Your task to perform on an android device: Search for asus zenbook on costco.com, select the first entry, add it to the cart, then select checkout. Image 0: 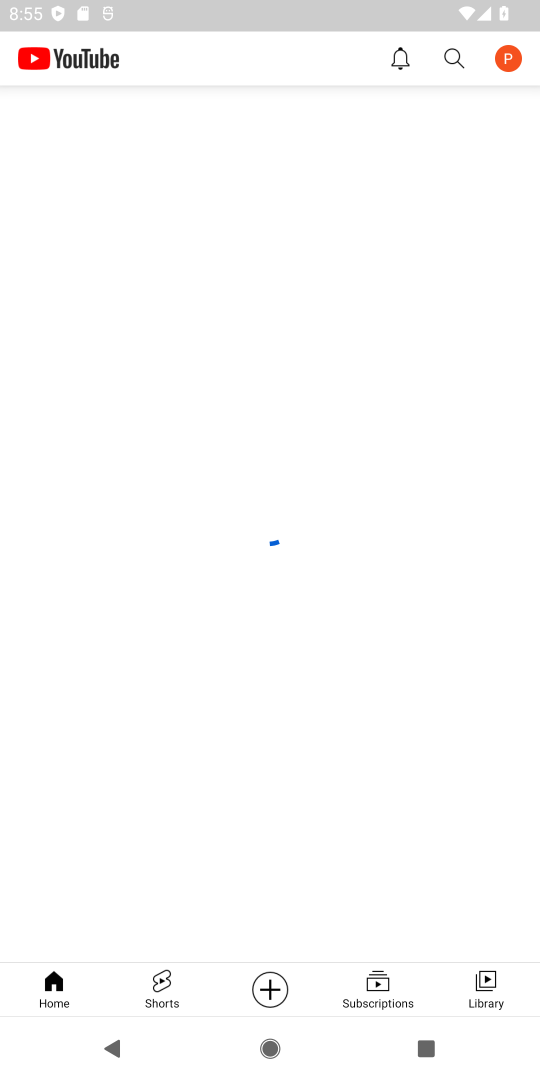
Step 0: press home button
Your task to perform on an android device: Search for asus zenbook on costco.com, select the first entry, add it to the cart, then select checkout. Image 1: 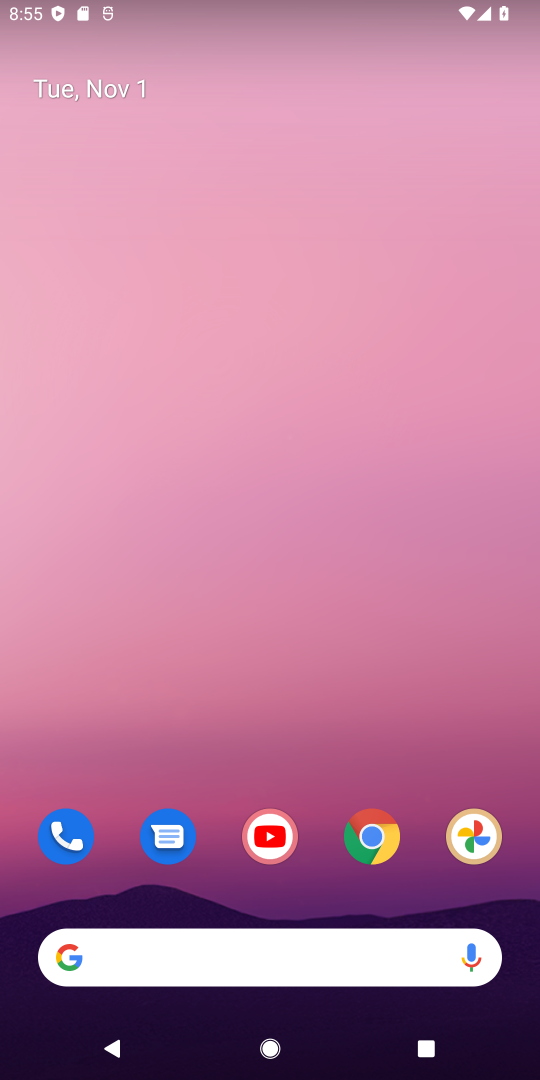
Step 1: click (361, 831)
Your task to perform on an android device: Search for asus zenbook on costco.com, select the first entry, add it to the cart, then select checkout. Image 2: 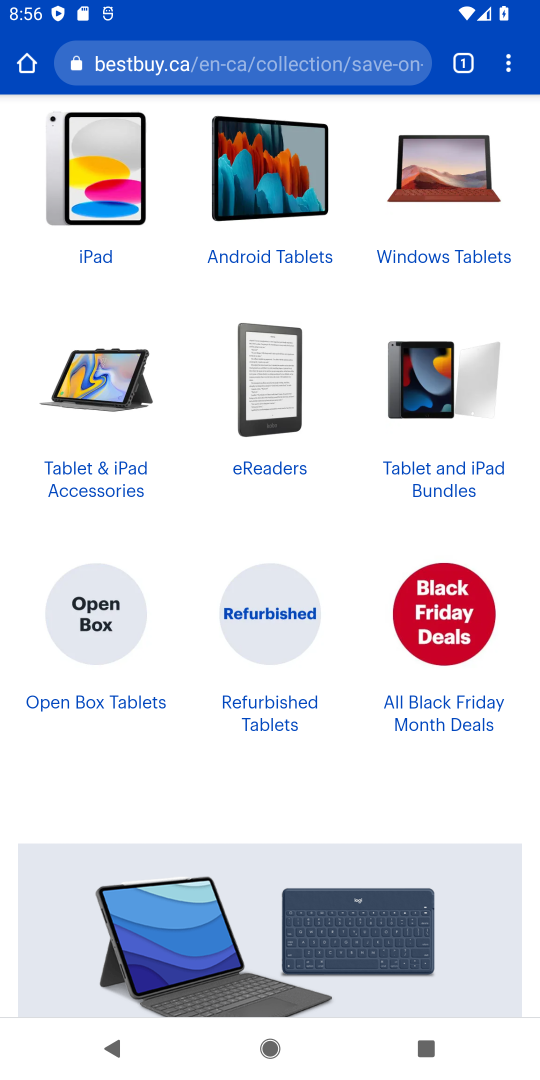
Step 2: click (186, 49)
Your task to perform on an android device: Search for asus zenbook on costco.com, select the first entry, add it to the cart, then select checkout. Image 3: 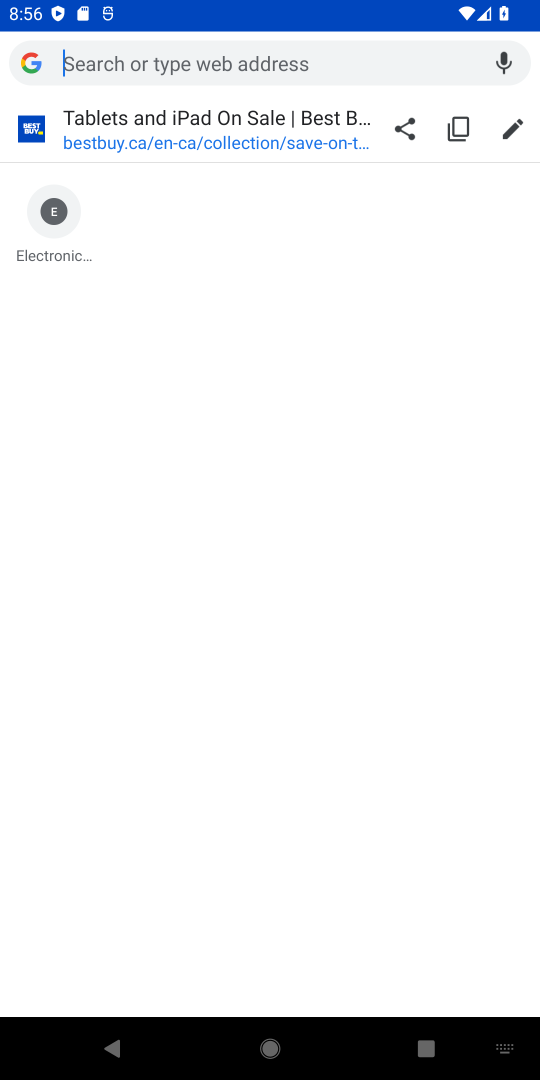
Step 3: type "costco.com"
Your task to perform on an android device: Search for asus zenbook on costco.com, select the first entry, add it to the cart, then select checkout. Image 4: 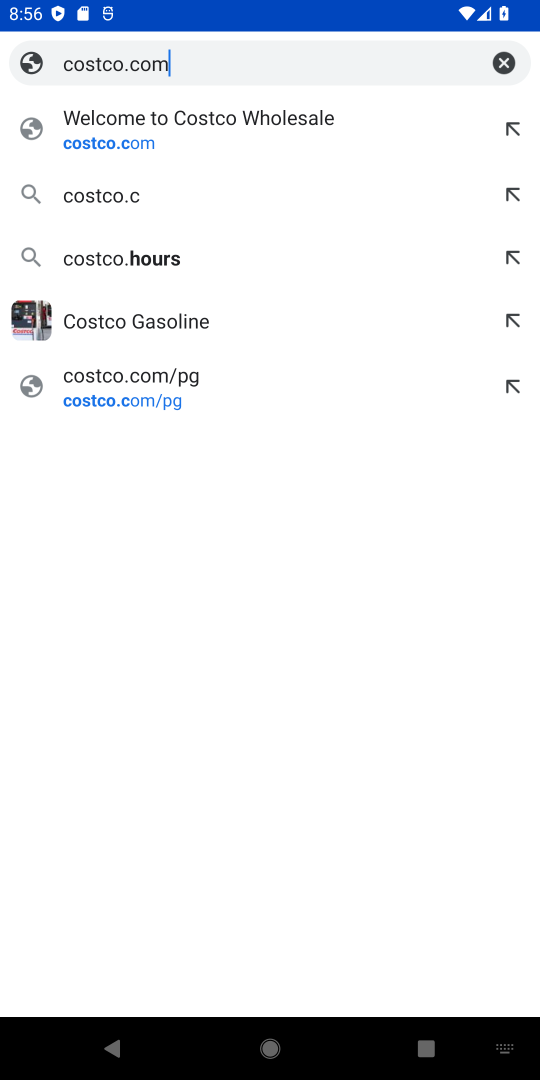
Step 4: type ""
Your task to perform on an android device: Search for asus zenbook on costco.com, select the first entry, add it to the cart, then select checkout. Image 5: 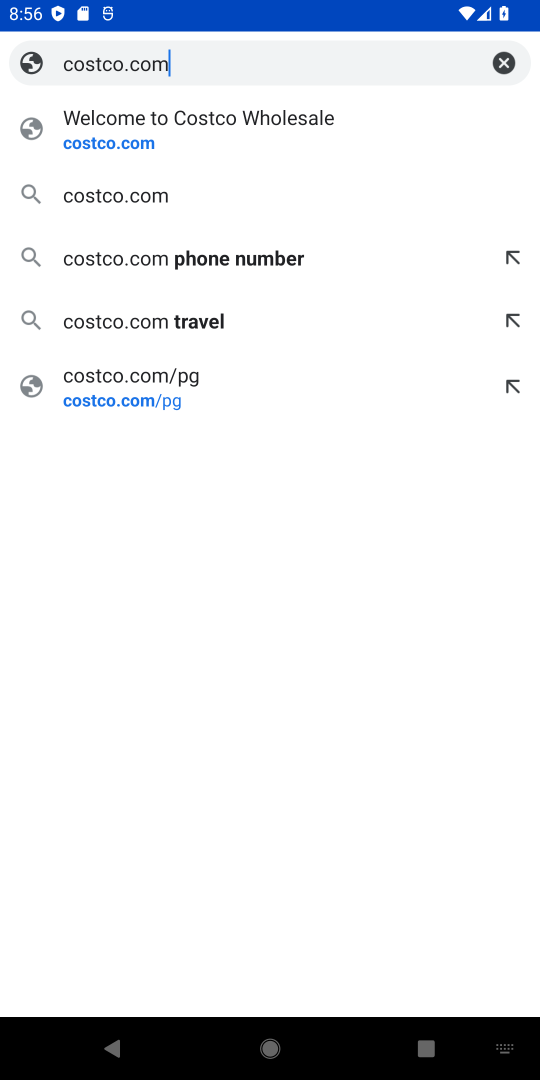
Step 5: click (230, 133)
Your task to perform on an android device: Search for asus zenbook on costco.com, select the first entry, add it to the cart, then select checkout. Image 6: 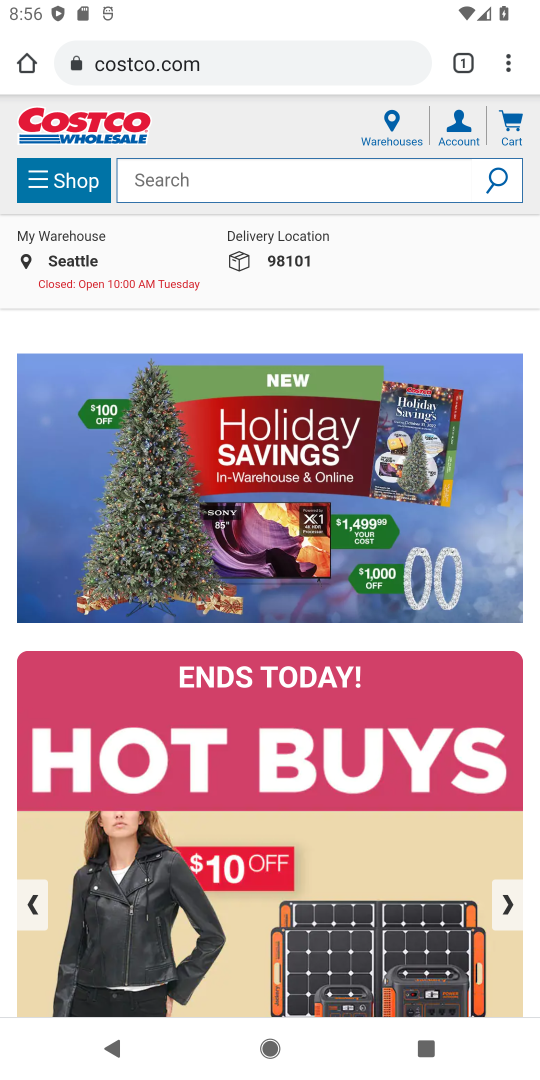
Step 6: click (142, 172)
Your task to perform on an android device: Search for asus zenbook on costco.com, select the first entry, add it to the cart, then select checkout. Image 7: 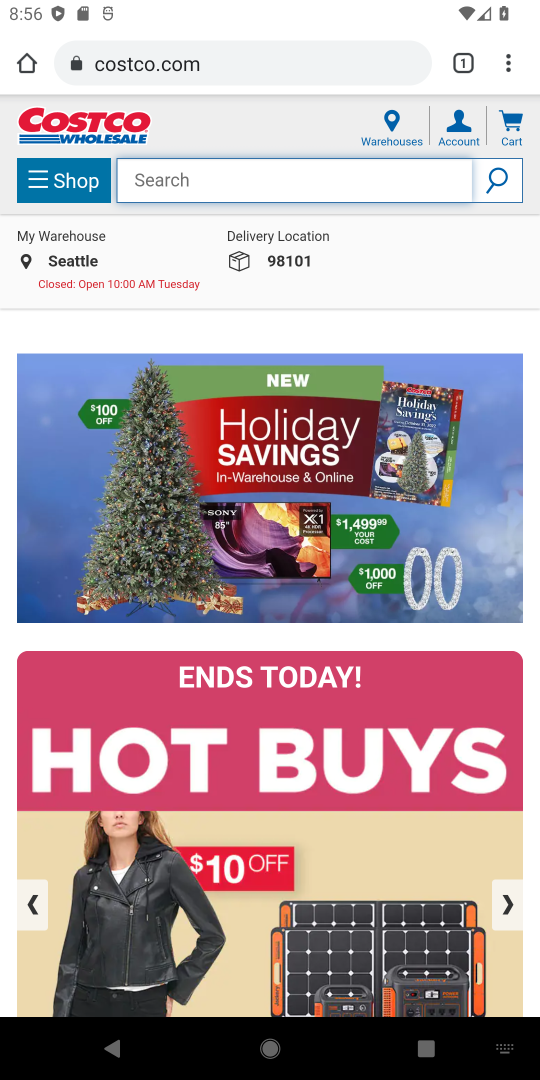
Step 7: type "asus zenbook"
Your task to perform on an android device: Search for asus zenbook on costco.com, select the first entry, add it to the cart, then select checkout. Image 8: 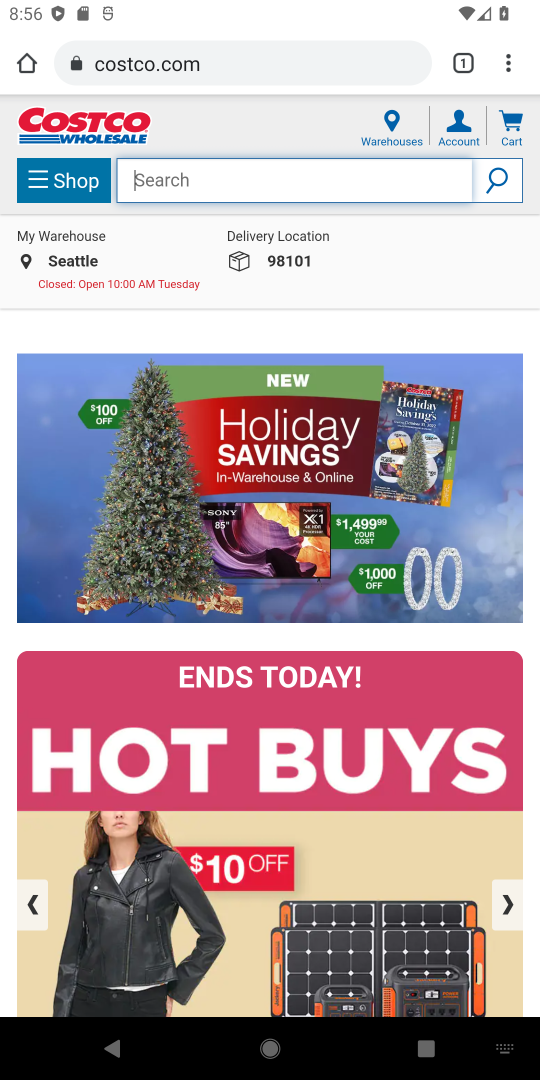
Step 8: type ""
Your task to perform on an android device: Search for asus zenbook on costco.com, select the first entry, add it to the cart, then select checkout. Image 9: 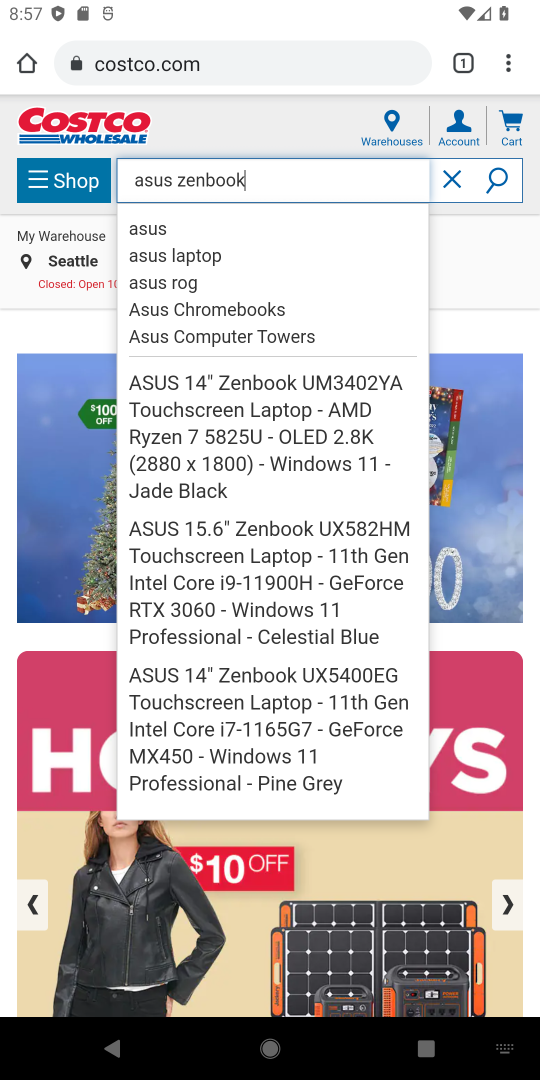
Step 9: press enter
Your task to perform on an android device: Search for asus zenbook on costco.com, select the first entry, add it to the cart, then select checkout. Image 10: 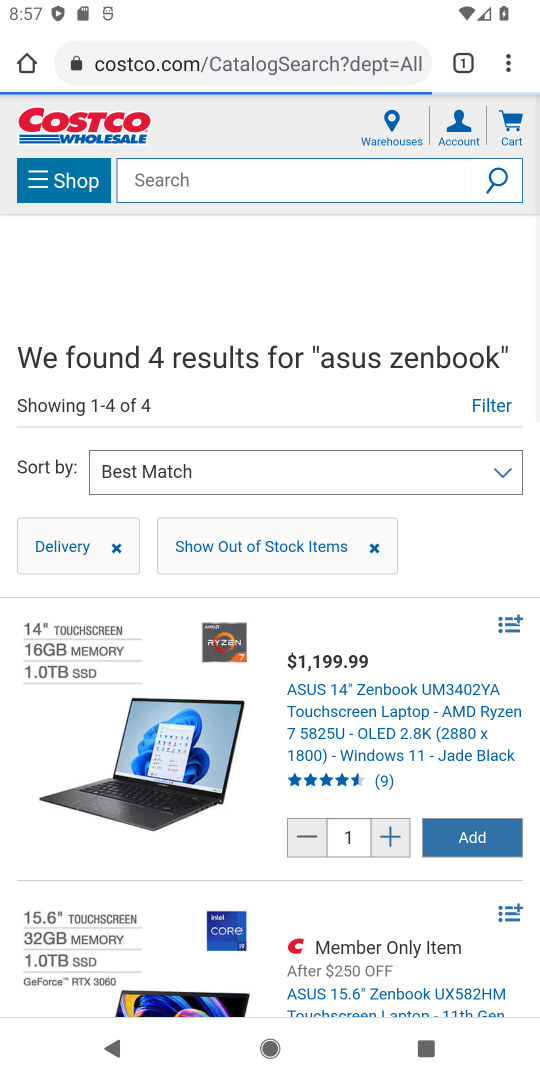
Step 10: click (321, 694)
Your task to perform on an android device: Search for asus zenbook on costco.com, select the first entry, add it to the cart, then select checkout. Image 11: 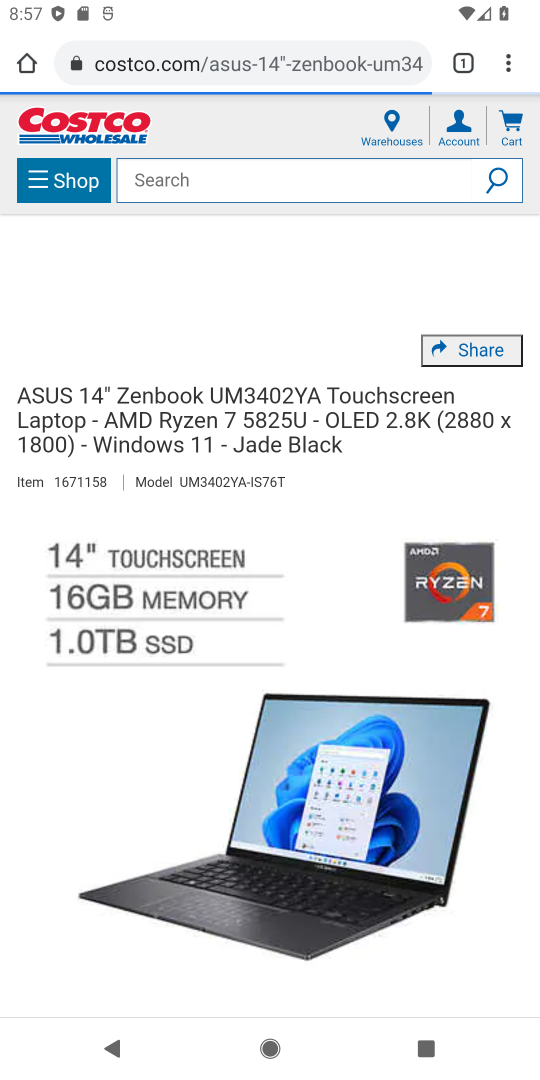
Step 11: drag from (341, 672) to (360, 509)
Your task to perform on an android device: Search for asus zenbook on costco.com, select the first entry, add it to the cart, then select checkout. Image 12: 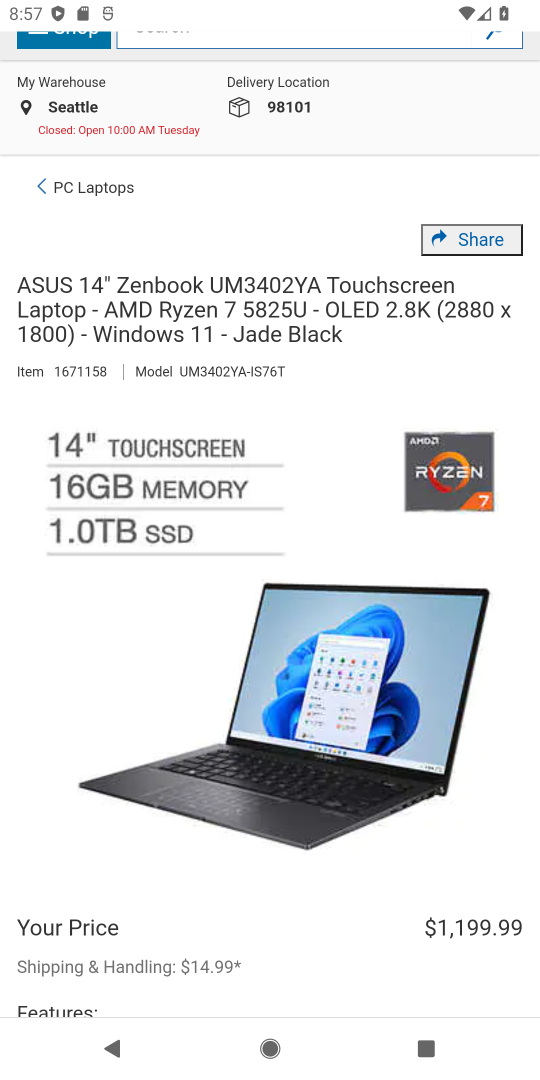
Step 12: drag from (356, 666) to (404, 248)
Your task to perform on an android device: Search for asus zenbook on costco.com, select the first entry, add it to the cart, then select checkout. Image 13: 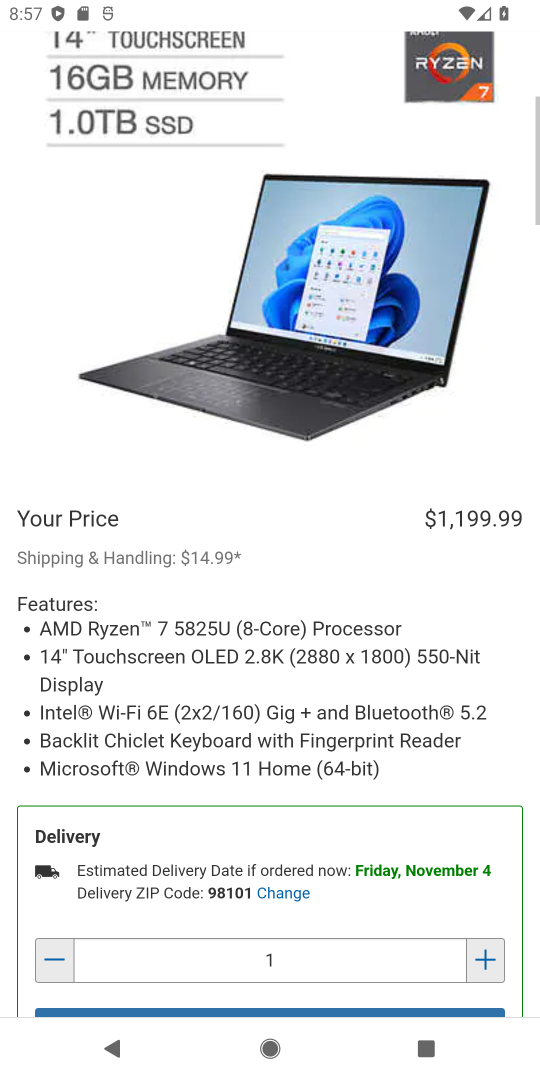
Step 13: click (347, 323)
Your task to perform on an android device: Search for asus zenbook on costco.com, select the first entry, add it to the cart, then select checkout. Image 14: 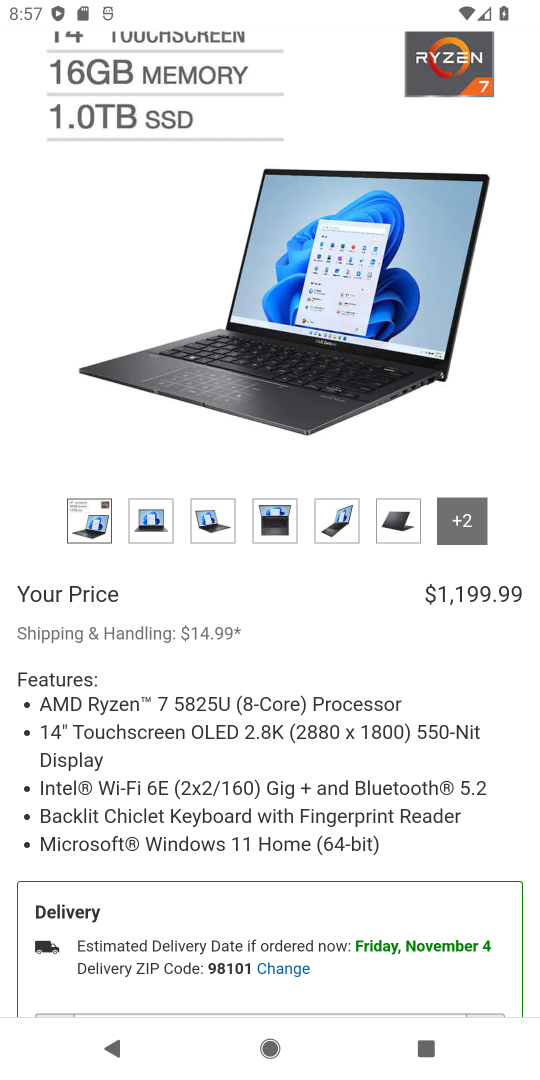
Step 14: drag from (332, 582) to (354, 383)
Your task to perform on an android device: Search for asus zenbook on costco.com, select the first entry, add it to the cart, then select checkout. Image 15: 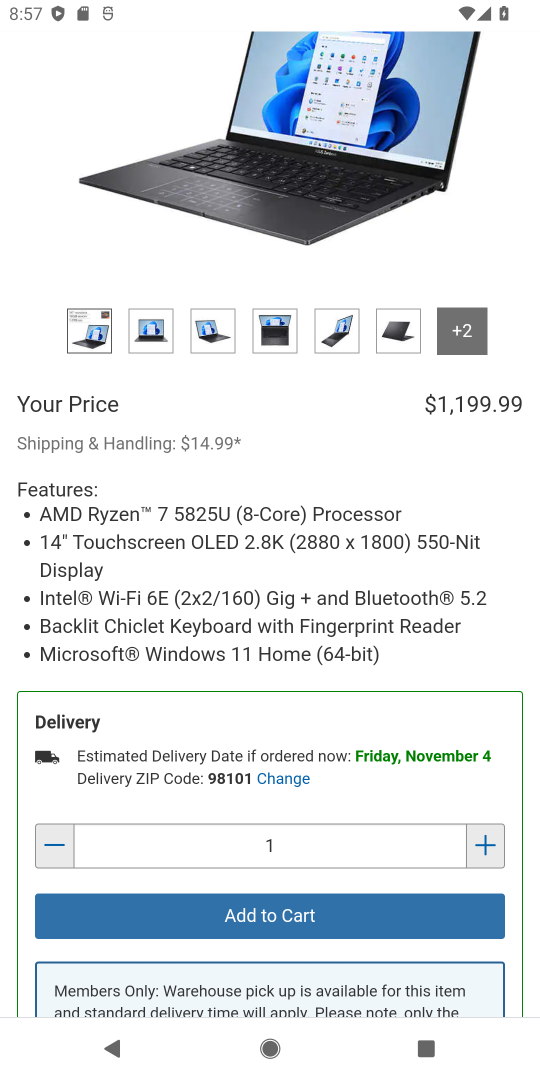
Step 15: click (287, 902)
Your task to perform on an android device: Search for asus zenbook on costco.com, select the first entry, add it to the cart, then select checkout. Image 16: 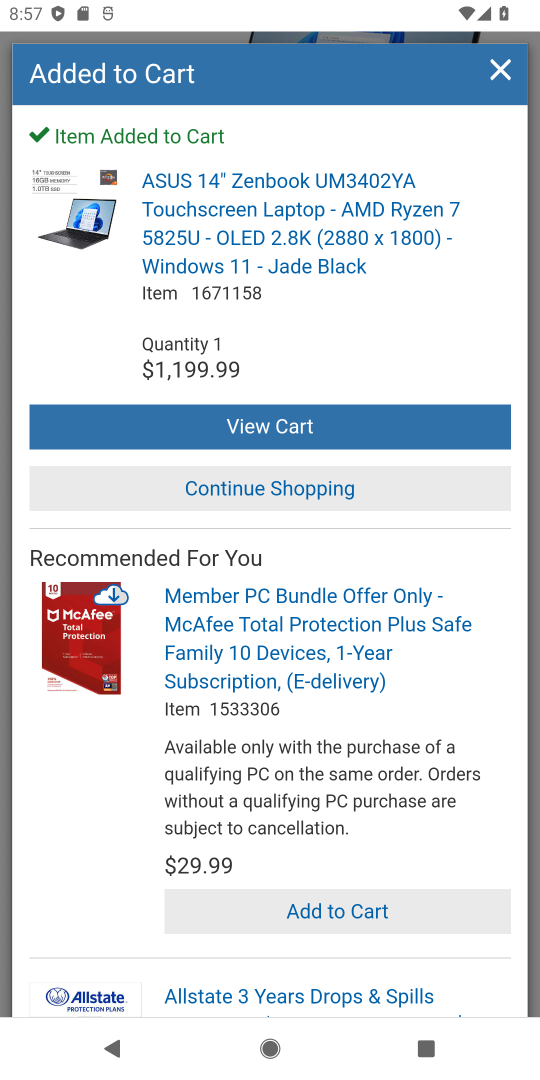
Step 16: click (395, 410)
Your task to perform on an android device: Search for asus zenbook on costco.com, select the first entry, add it to the cart, then select checkout. Image 17: 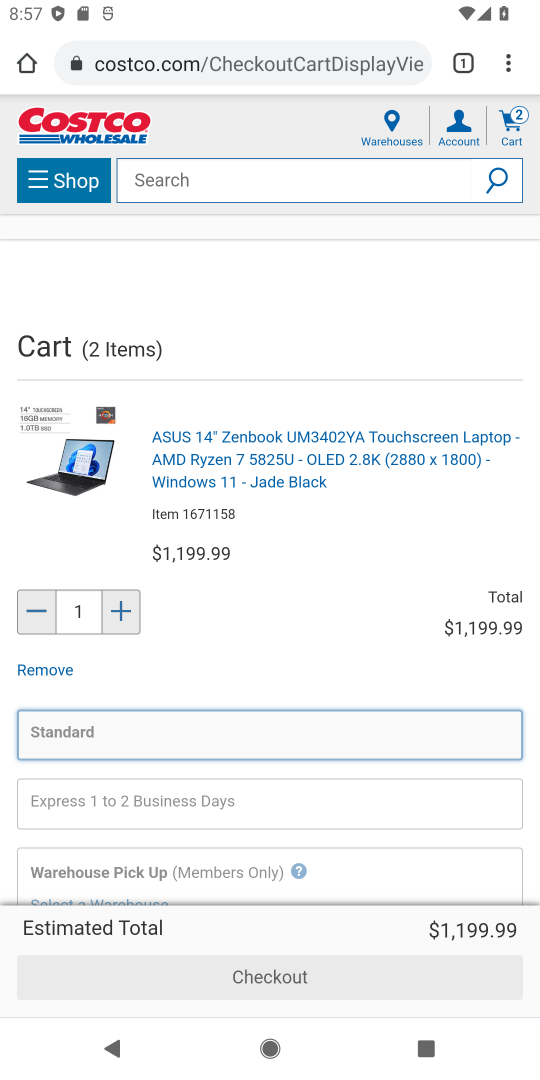
Step 17: drag from (372, 662) to (380, 306)
Your task to perform on an android device: Search for asus zenbook on costco.com, select the first entry, add it to the cart, then select checkout. Image 18: 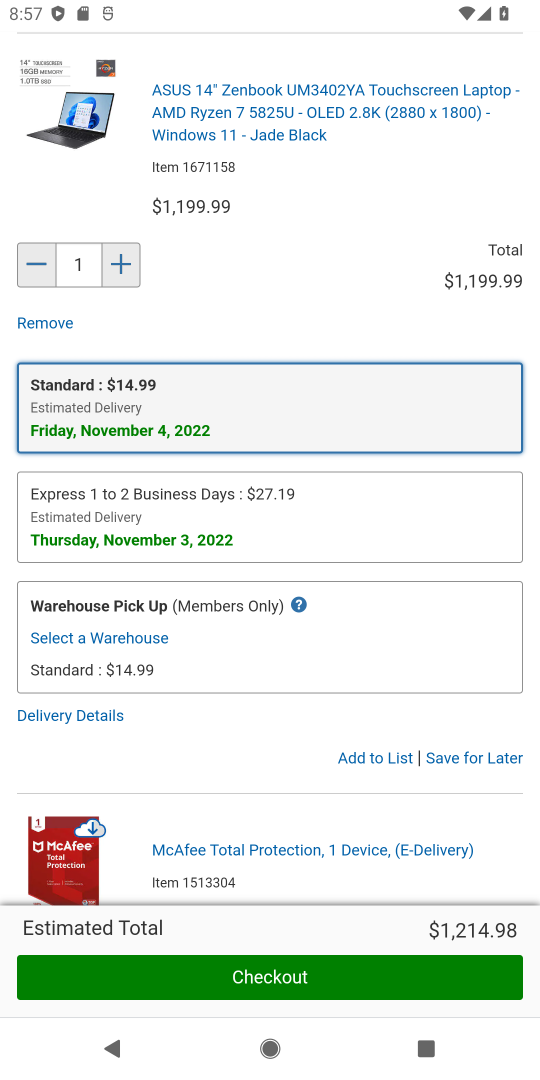
Step 18: drag from (347, 640) to (347, 365)
Your task to perform on an android device: Search for asus zenbook on costco.com, select the first entry, add it to the cart, then select checkout. Image 19: 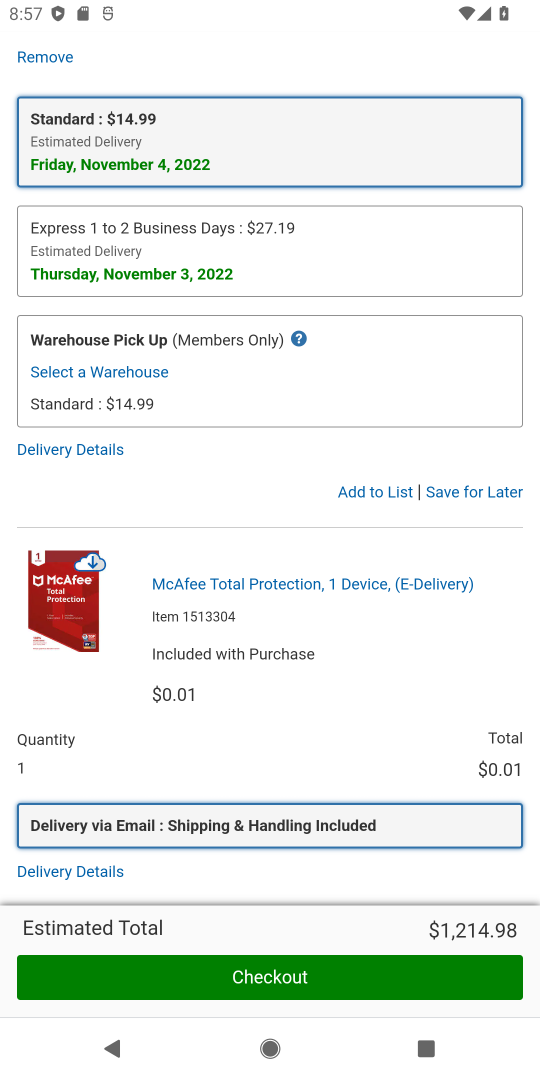
Step 19: click (273, 976)
Your task to perform on an android device: Search for asus zenbook on costco.com, select the first entry, add it to the cart, then select checkout. Image 20: 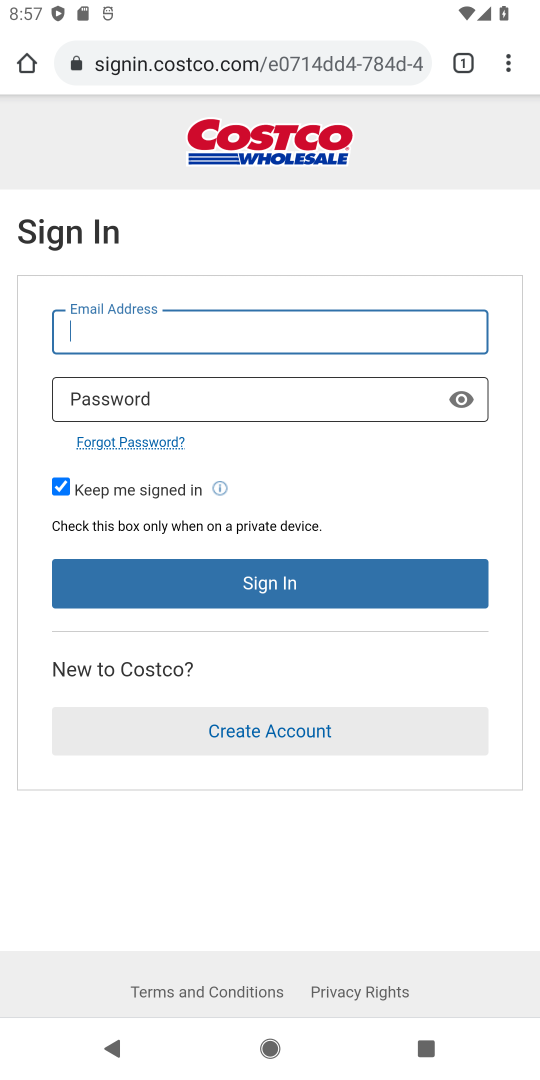
Step 20: press back button
Your task to perform on an android device: Search for asus zenbook on costco.com, select the first entry, add it to the cart, then select checkout. Image 21: 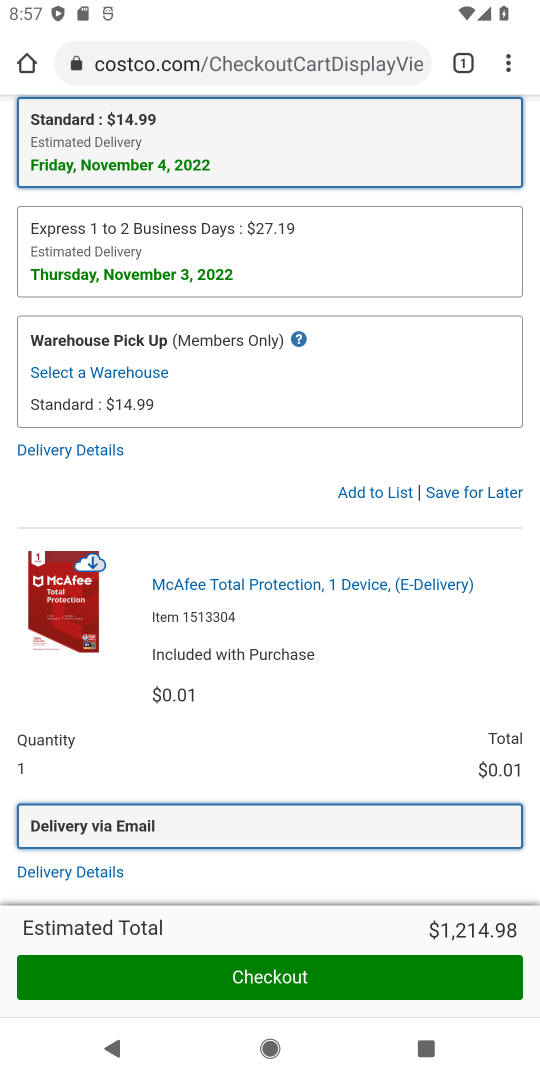
Step 21: drag from (339, 720) to (351, 278)
Your task to perform on an android device: Search for asus zenbook on costco.com, select the first entry, add it to the cart, then select checkout. Image 22: 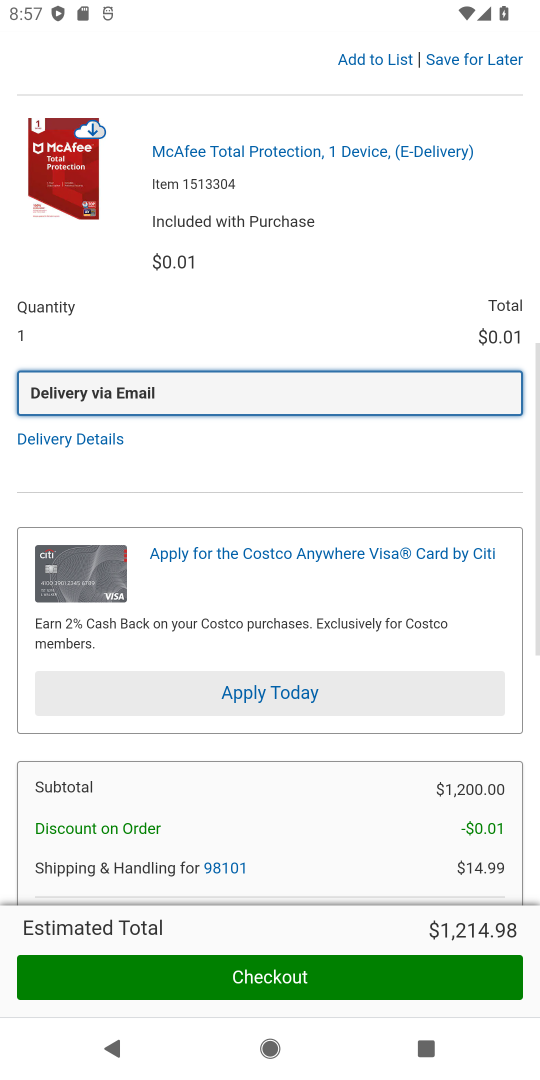
Step 22: click (373, 271)
Your task to perform on an android device: Search for asus zenbook on costco.com, select the first entry, add it to the cart, then select checkout. Image 23: 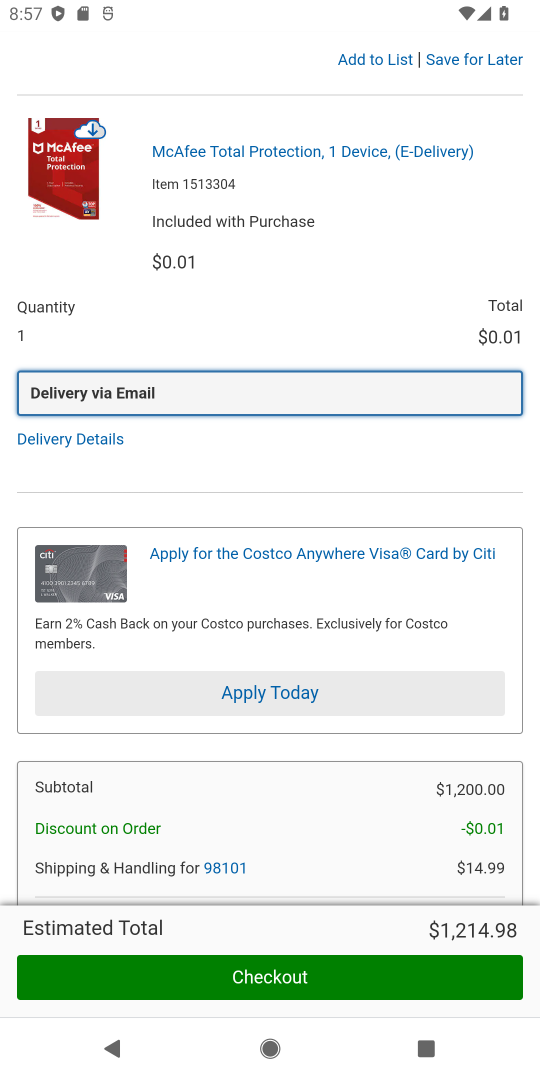
Step 23: drag from (340, 647) to (358, 403)
Your task to perform on an android device: Search for asus zenbook on costco.com, select the first entry, add it to the cart, then select checkout. Image 24: 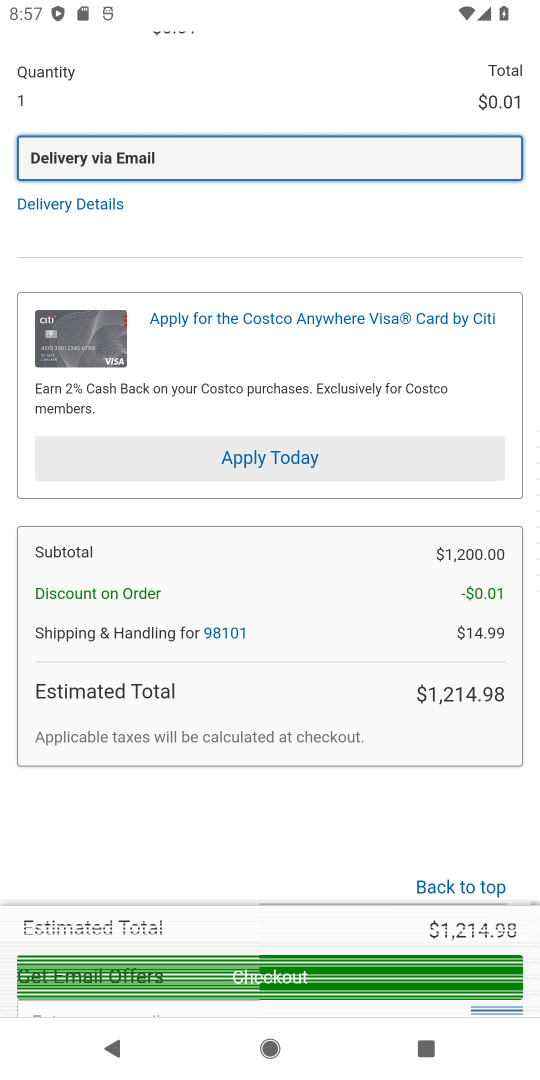
Step 24: click (258, 976)
Your task to perform on an android device: Search for asus zenbook on costco.com, select the first entry, add it to the cart, then select checkout. Image 25: 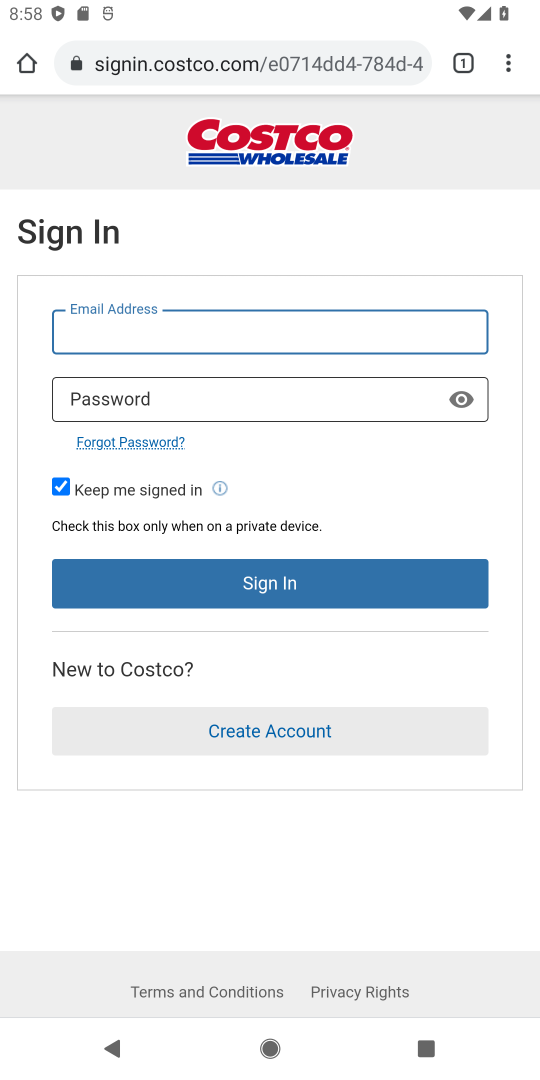
Step 25: press back button
Your task to perform on an android device: Search for asus zenbook on costco.com, select the first entry, add it to the cart, then select checkout. Image 26: 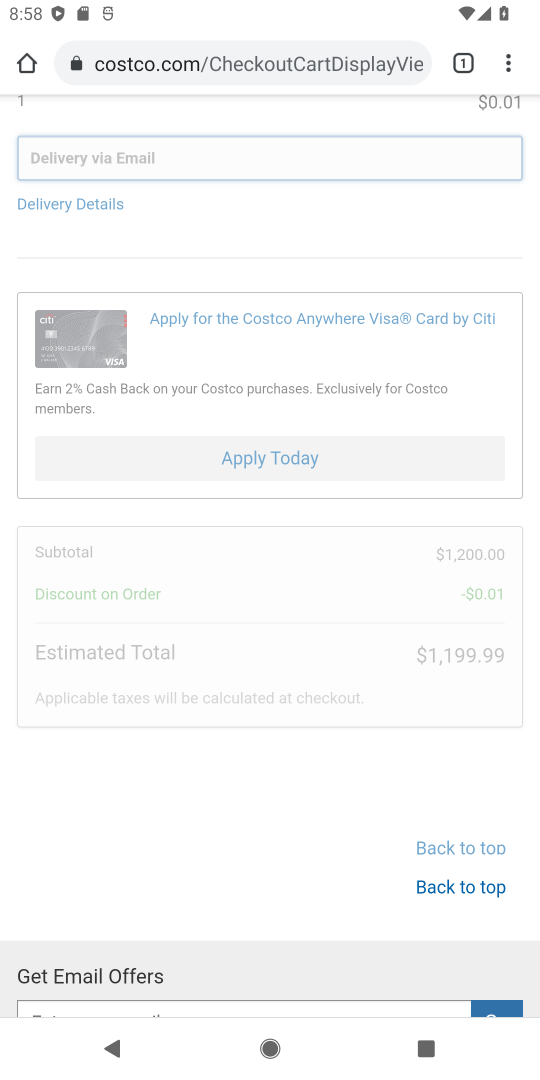
Step 26: drag from (249, 718) to (301, 293)
Your task to perform on an android device: Search for asus zenbook on costco.com, select the first entry, add it to the cart, then select checkout. Image 27: 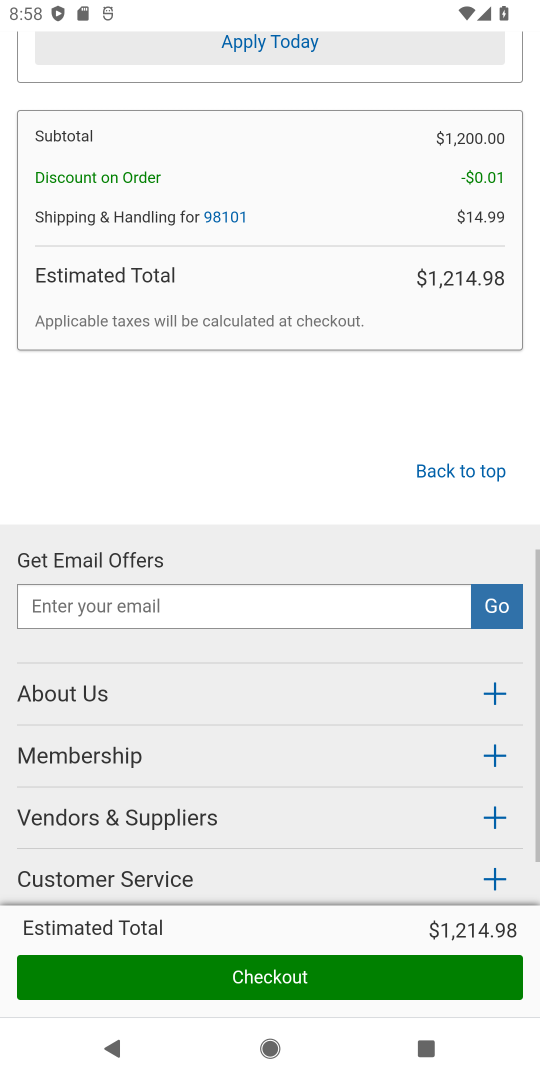
Step 27: drag from (303, 433) to (320, 309)
Your task to perform on an android device: Search for asus zenbook on costco.com, select the first entry, add it to the cart, then select checkout. Image 28: 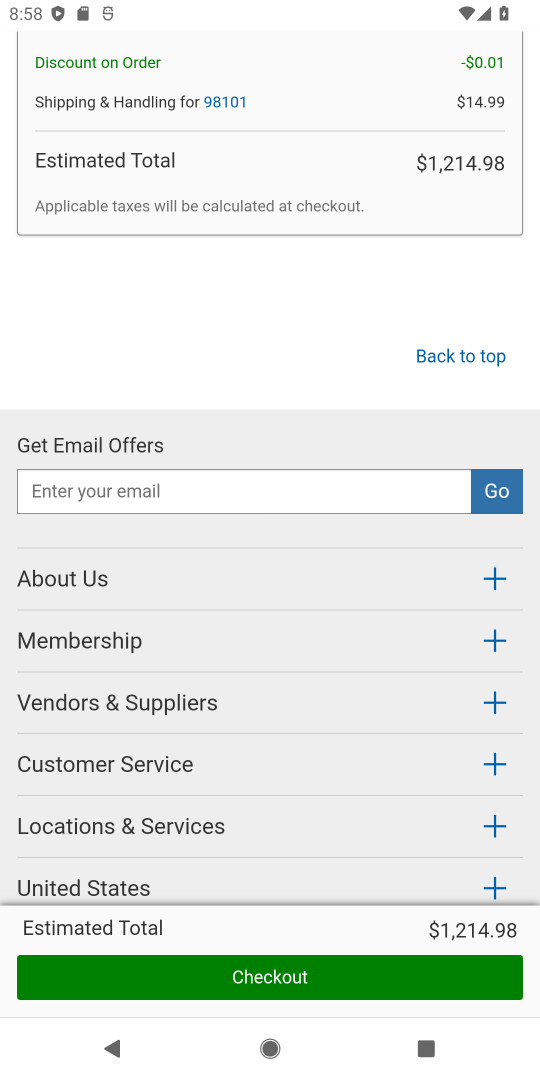
Step 28: drag from (298, 611) to (343, 358)
Your task to perform on an android device: Search for asus zenbook on costco.com, select the first entry, add it to the cart, then select checkout. Image 29: 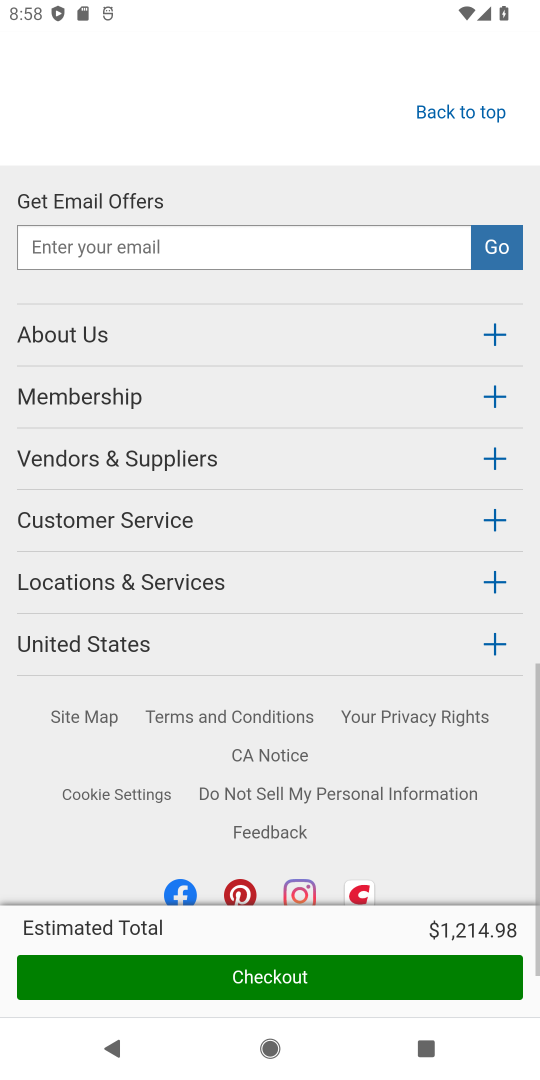
Step 29: drag from (386, 549) to (413, 222)
Your task to perform on an android device: Search for asus zenbook on costco.com, select the first entry, add it to the cart, then select checkout. Image 30: 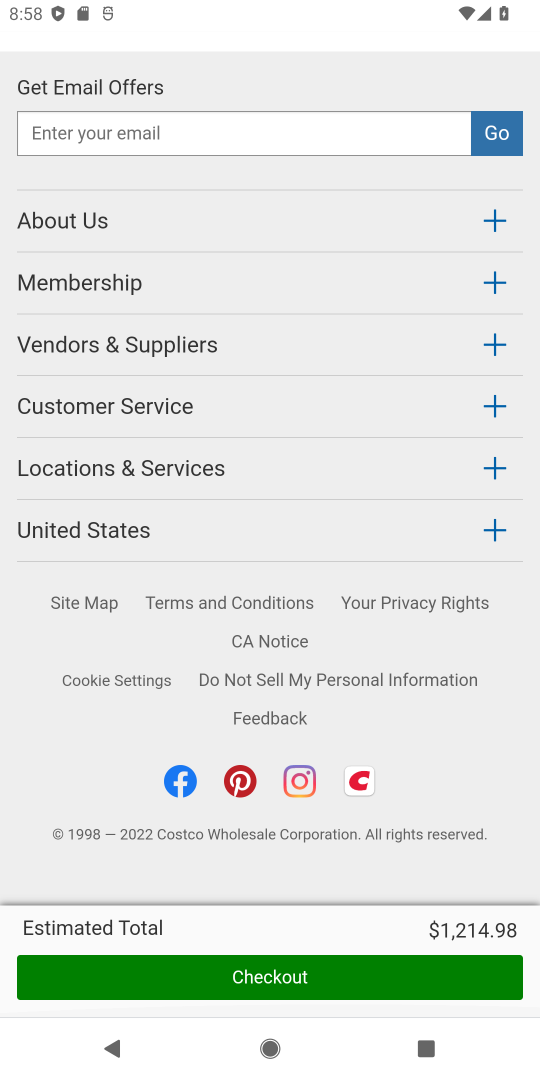
Step 30: press back button
Your task to perform on an android device: Search for asus zenbook on costco.com, select the first entry, add it to the cart, then select checkout. Image 31: 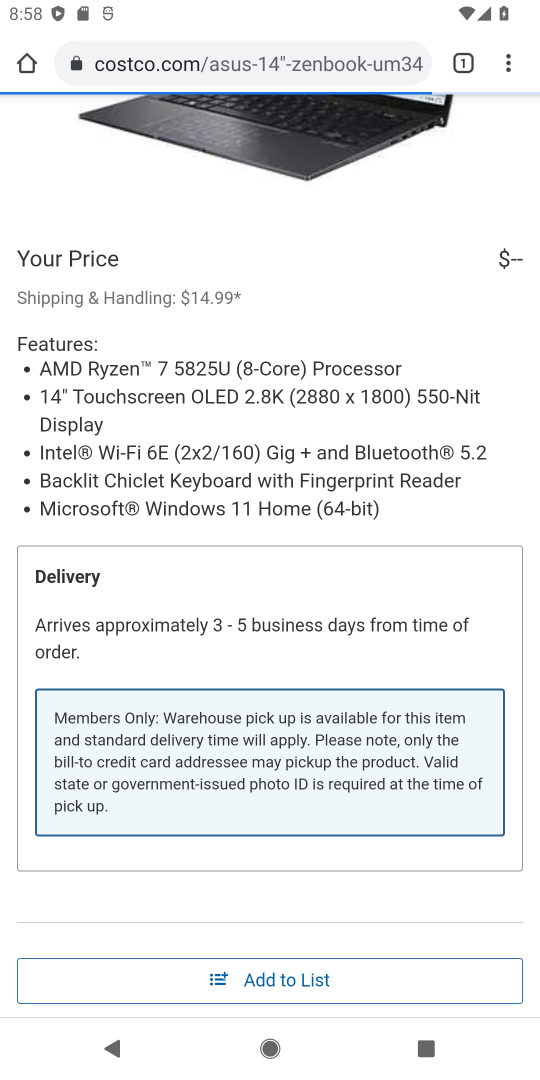
Step 31: press back button
Your task to perform on an android device: Search for asus zenbook on costco.com, select the first entry, add it to the cart, then select checkout. Image 32: 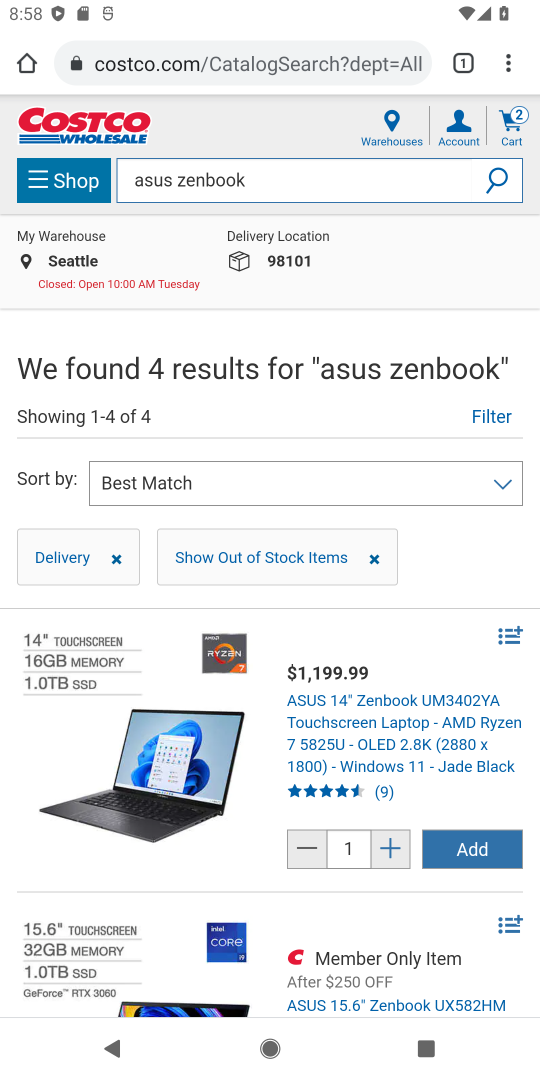
Step 32: drag from (335, 409) to (364, 248)
Your task to perform on an android device: Search for asus zenbook on costco.com, select the first entry, add it to the cart, then select checkout. Image 33: 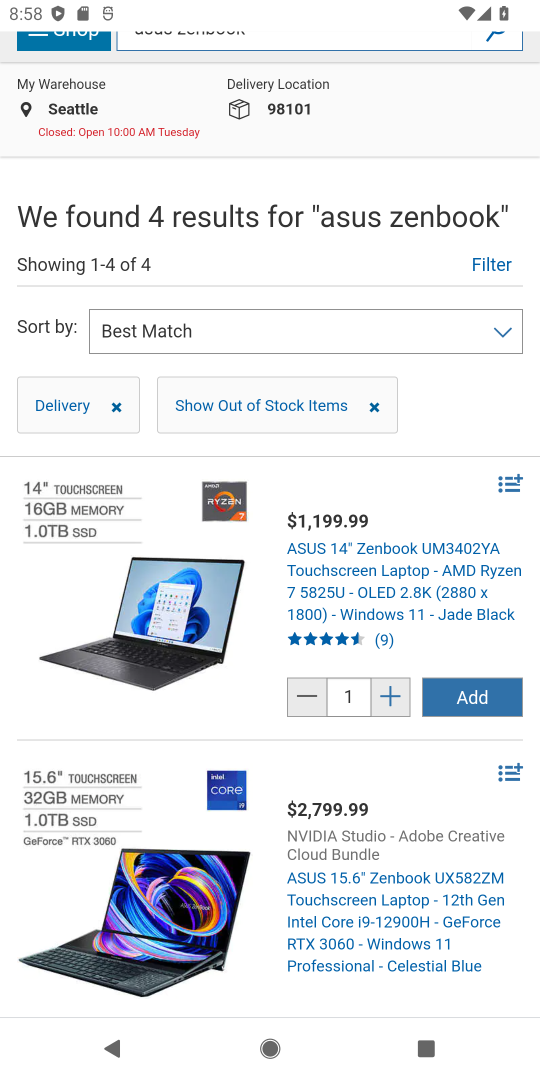
Step 33: drag from (363, 202) to (357, 733)
Your task to perform on an android device: Search for asus zenbook on costco.com, select the first entry, add it to the cart, then select checkout. Image 34: 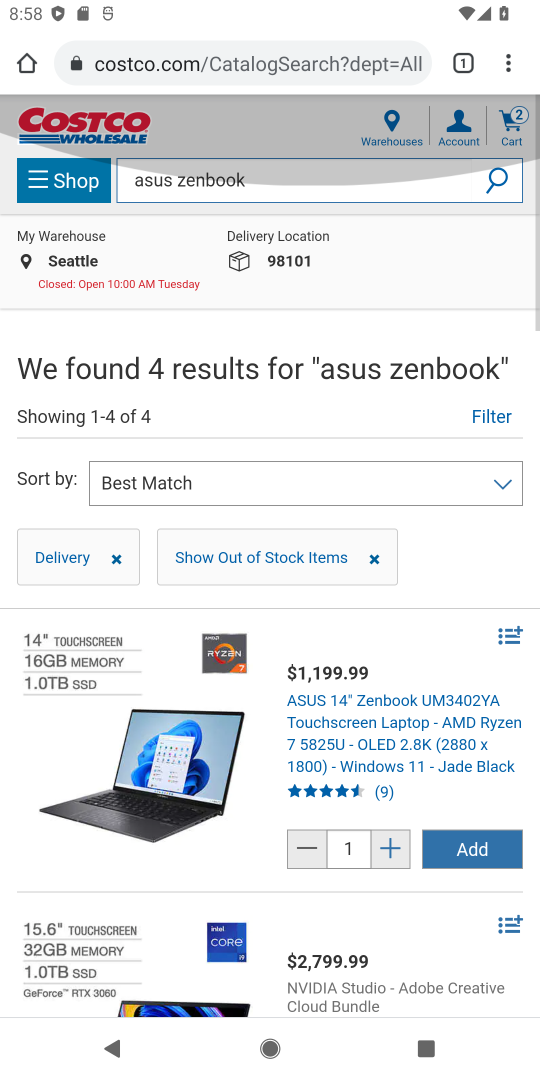
Step 34: drag from (403, 271) to (389, 397)
Your task to perform on an android device: Search for asus zenbook on costco.com, select the first entry, add it to the cart, then select checkout. Image 35: 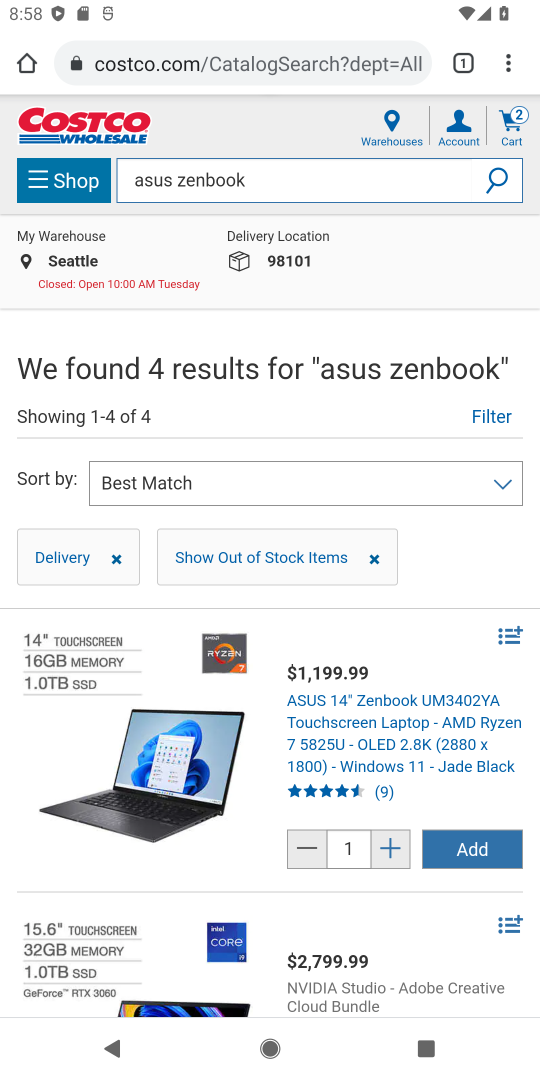
Step 35: click (515, 127)
Your task to perform on an android device: Search for asus zenbook on costco.com, select the first entry, add it to the cart, then select checkout. Image 36: 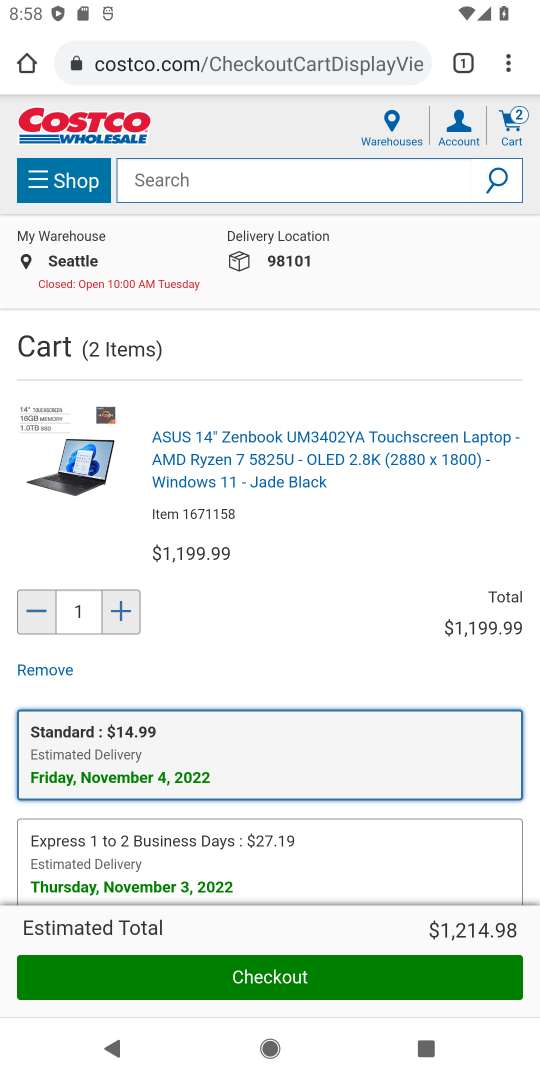
Step 36: click (281, 990)
Your task to perform on an android device: Search for asus zenbook on costco.com, select the first entry, add it to the cart, then select checkout. Image 37: 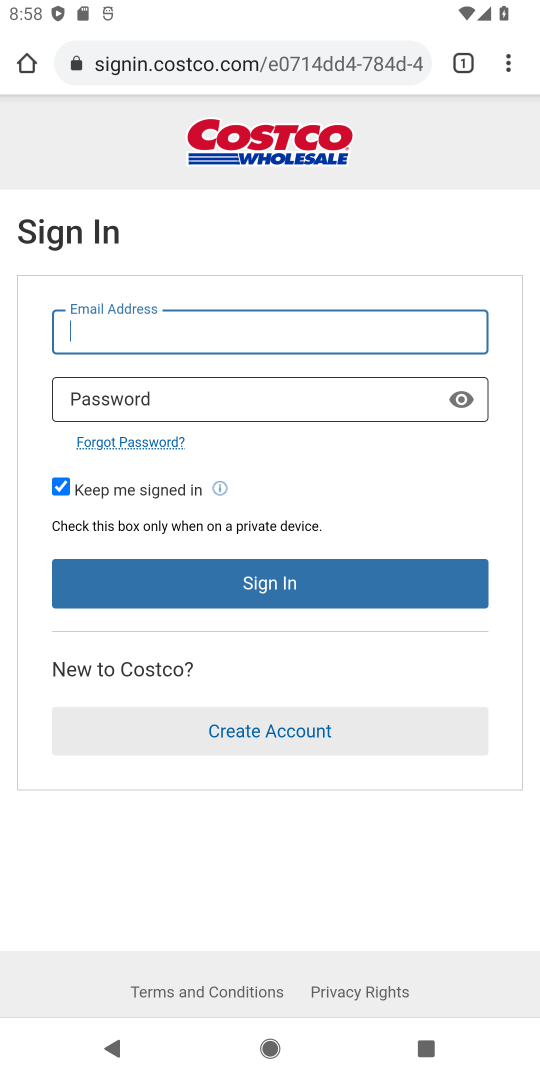
Step 37: task complete